Your task to perform on an android device: turn off translation in the chrome app Image 0: 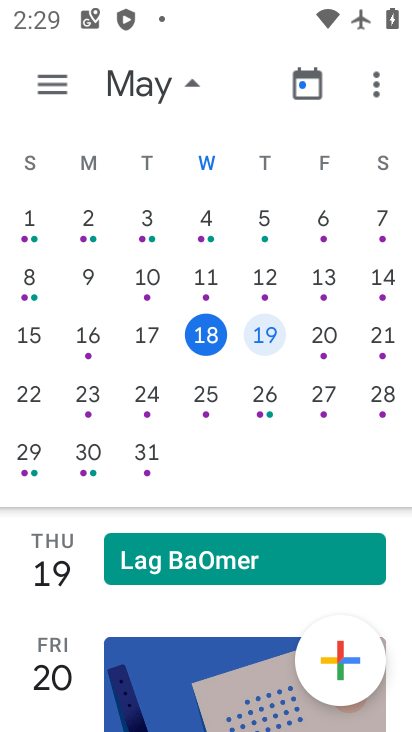
Step 0: press home button
Your task to perform on an android device: turn off translation in the chrome app Image 1: 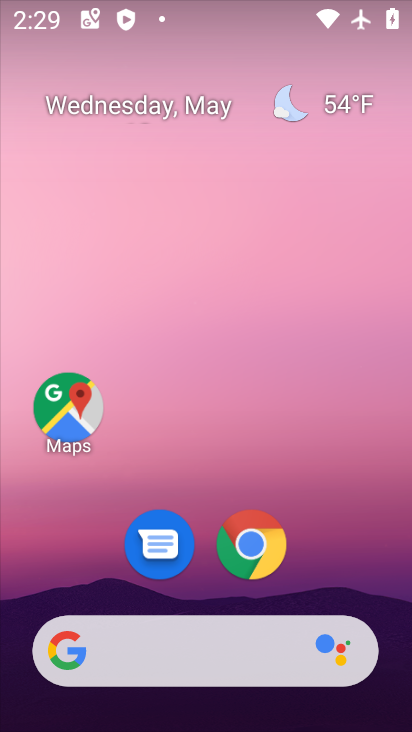
Step 1: click (276, 535)
Your task to perform on an android device: turn off translation in the chrome app Image 2: 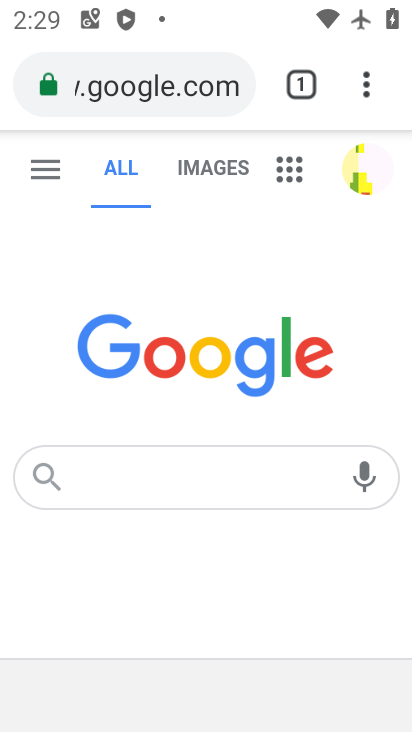
Step 2: click (361, 101)
Your task to perform on an android device: turn off translation in the chrome app Image 3: 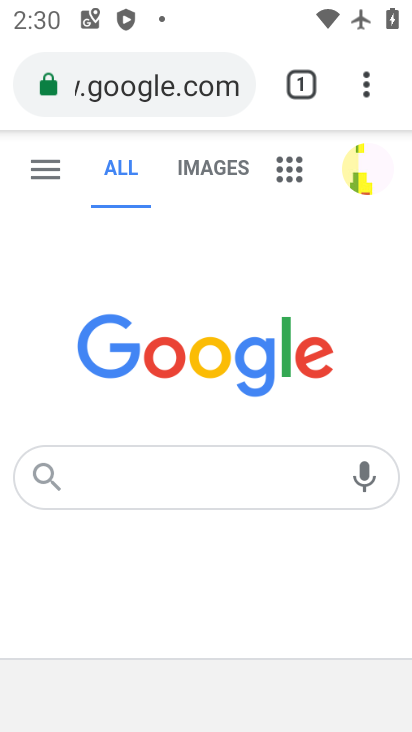
Step 3: click (367, 86)
Your task to perform on an android device: turn off translation in the chrome app Image 4: 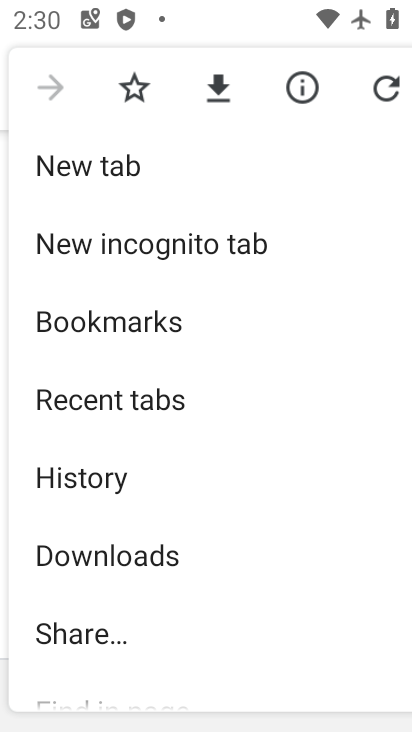
Step 4: drag from (235, 576) to (253, 277)
Your task to perform on an android device: turn off translation in the chrome app Image 5: 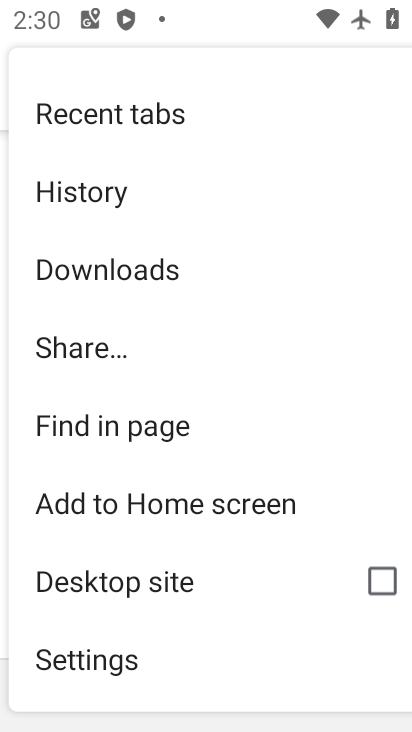
Step 5: click (175, 683)
Your task to perform on an android device: turn off translation in the chrome app Image 6: 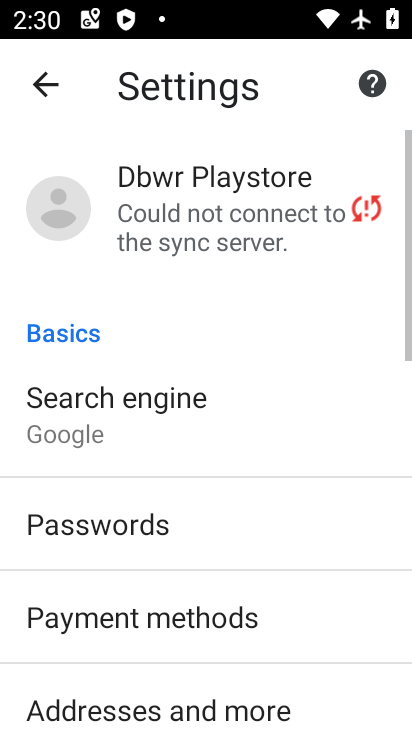
Step 6: drag from (175, 683) to (279, 197)
Your task to perform on an android device: turn off translation in the chrome app Image 7: 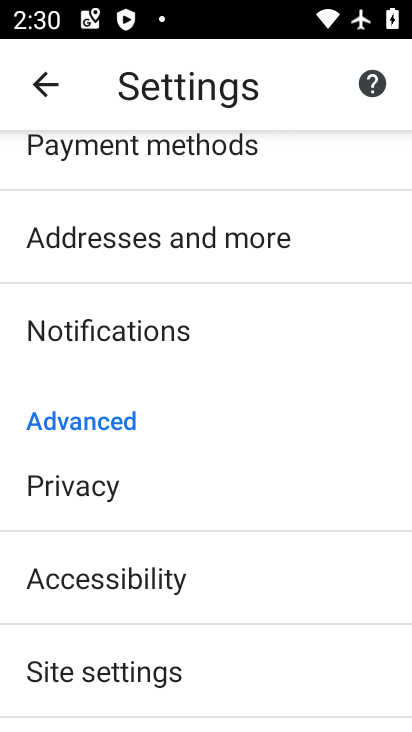
Step 7: drag from (190, 594) to (262, 265)
Your task to perform on an android device: turn off translation in the chrome app Image 8: 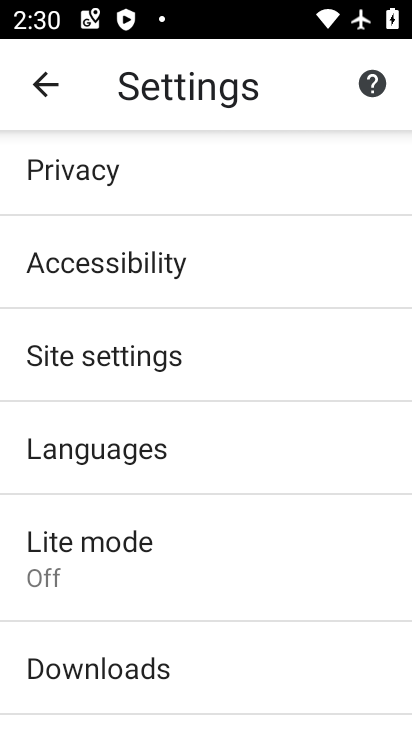
Step 8: click (181, 424)
Your task to perform on an android device: turn off translation in the chrome app Image 9: 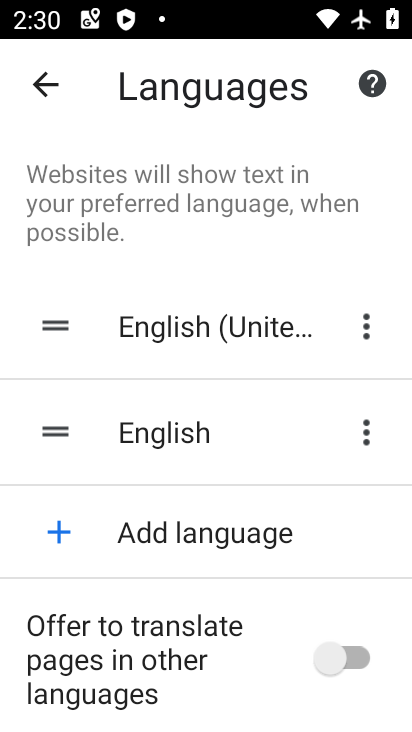
Step 9: click (306, 653)
Your task to perform on an android device: turn off translation in the chrome app Image 10: 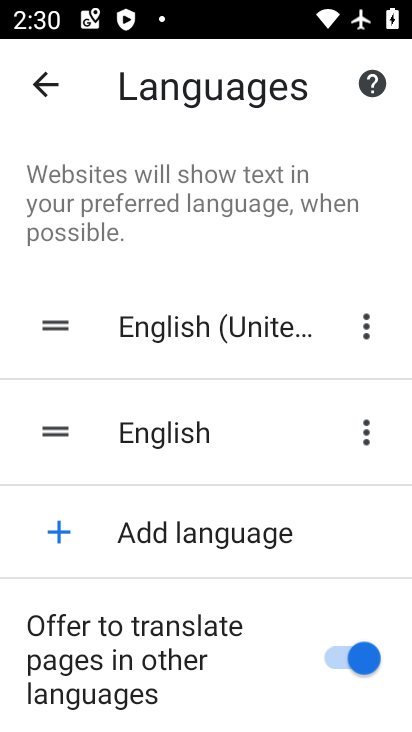
Step 10: click (323, 651)
Your task to perform on an android device: turn off translation in the chrome app Image 11: 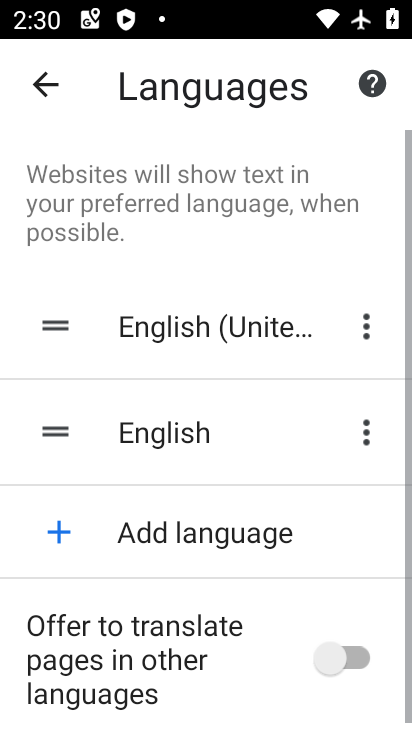
Step 11: task complete